Your task to perform on an android device: Open CNN.com Image 0: 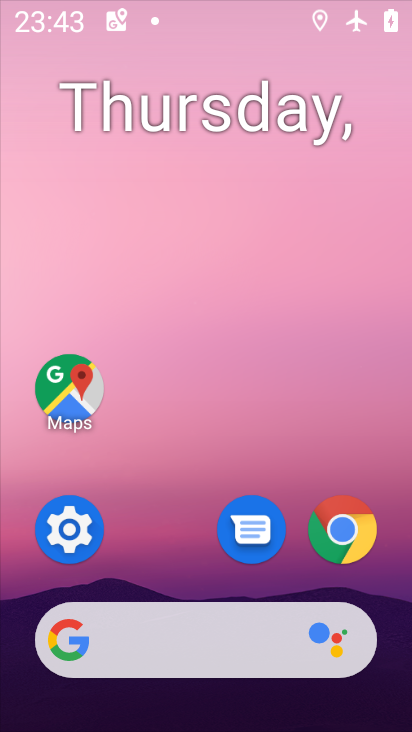
Step 0: drag from (181, 690) to (114, 57)
Your task to perform on an android device: Open CNN.com Image 1: 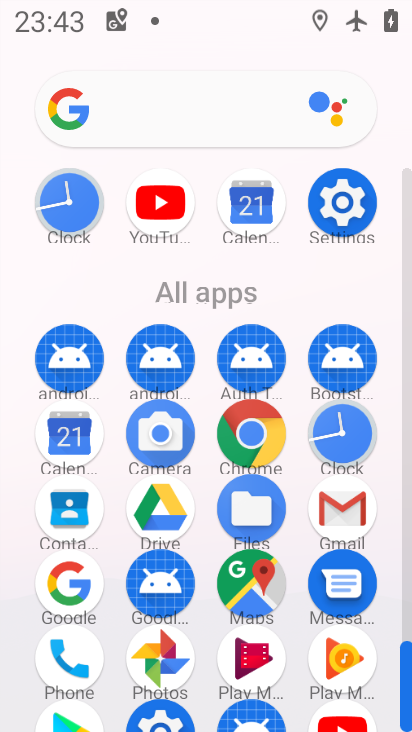
Step 1: click (255, 439)
Your task to perform on an android device: Open CNN.com Image 2: 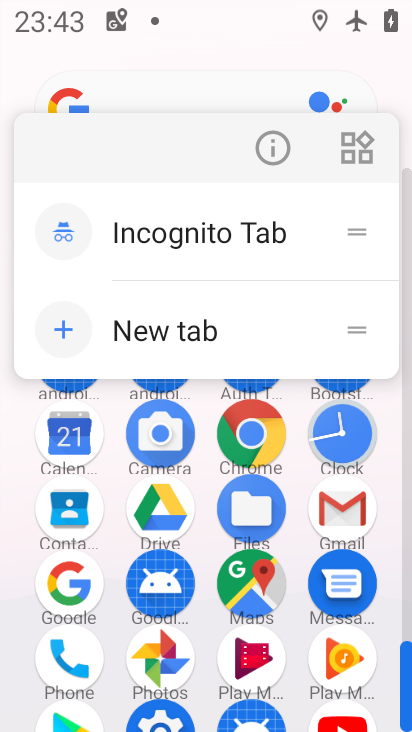
Step 2: press back button
Your task to perform on an android device: Open CNN.com Image 3: 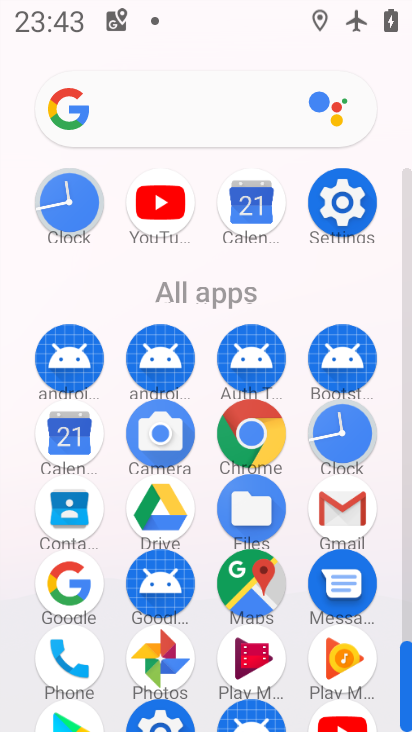
Step 3: press back button
Your task to perform on an android device: Open CNN.com Image 4: 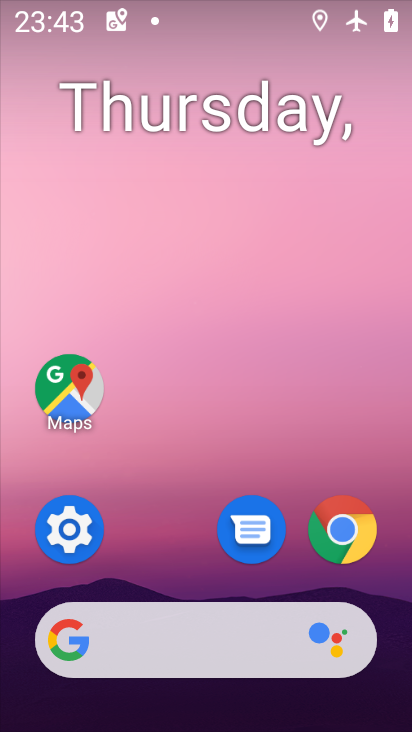
Step 4: click (190, 645)
Your task to perform on an android device: Open CNN.com Image 5: 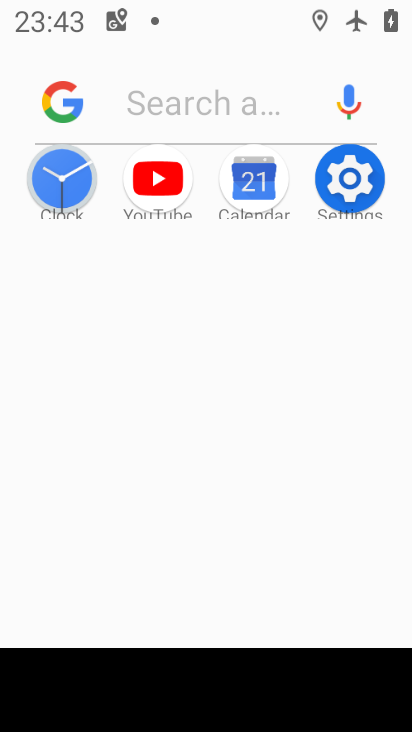
Step 5: type "cnn.com"
Your task to perform on an android device: Open CNN.com Image 6: 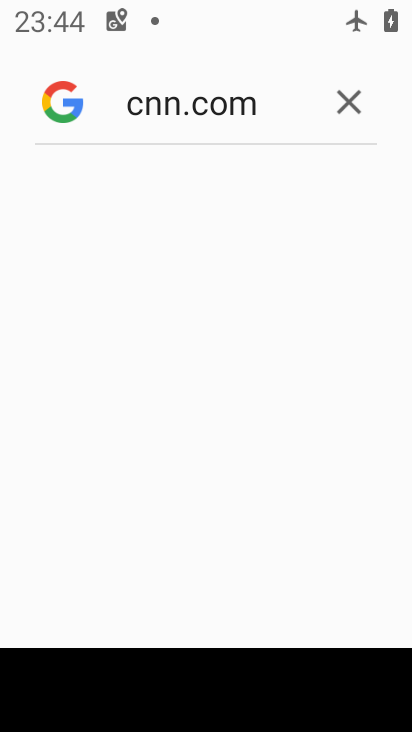
Step 6: task complete